Your task to perform on an android device: open chrome and create a bookmark for the current page Image 0: 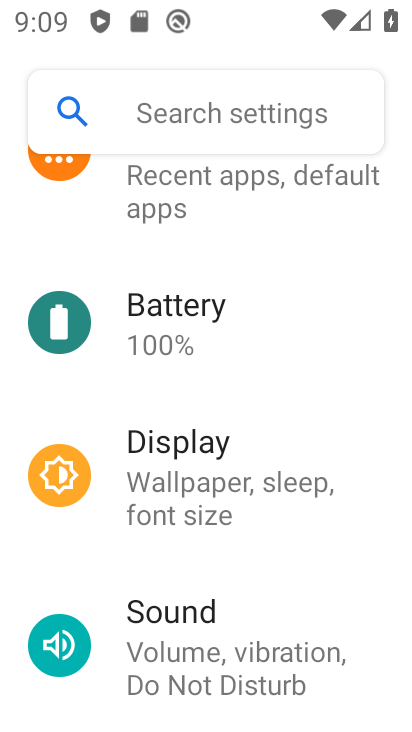
Step 0: press home button
Your task to perform on an android device: open chrome and create a bookmark for the current page Image 1: 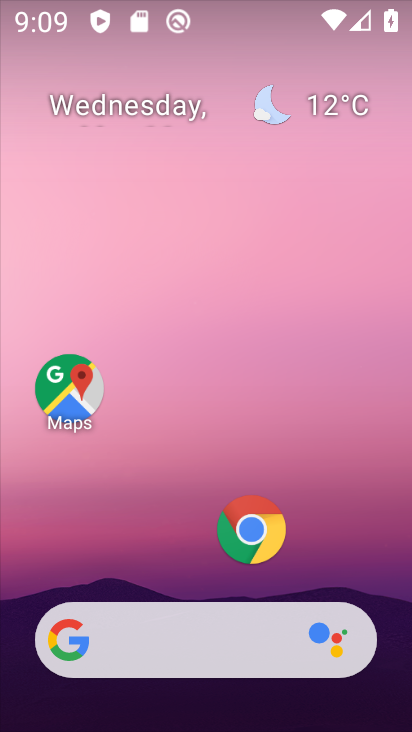
Step 1: click (242, 523)
Your task to perform on an android device: open chrome and create a bookmark for the current page Image 2: 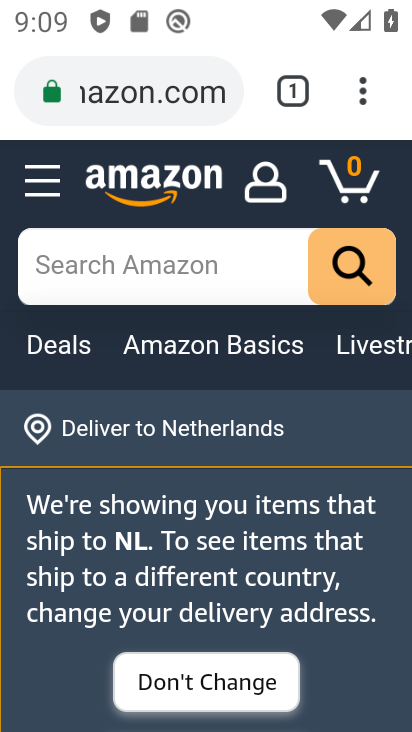
Step 2: click (369, 94)
Your task to perform on an android device: open chrome and create a bookmark for the current page Image 3: 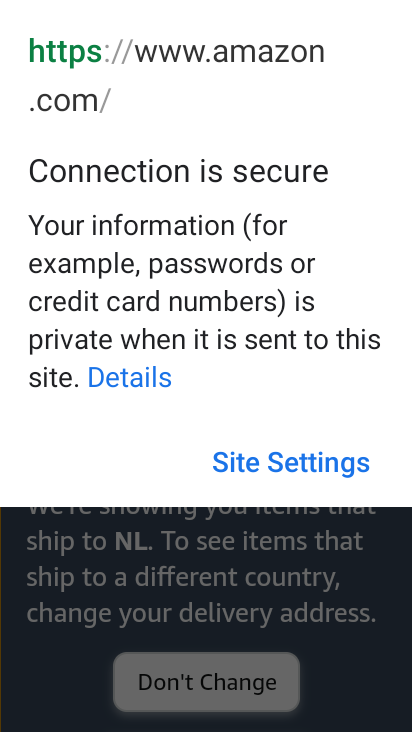
Step 3: click (386, 600)
Your task to perform on an android device: open chrome and create a bookmark for the current page Image 4: 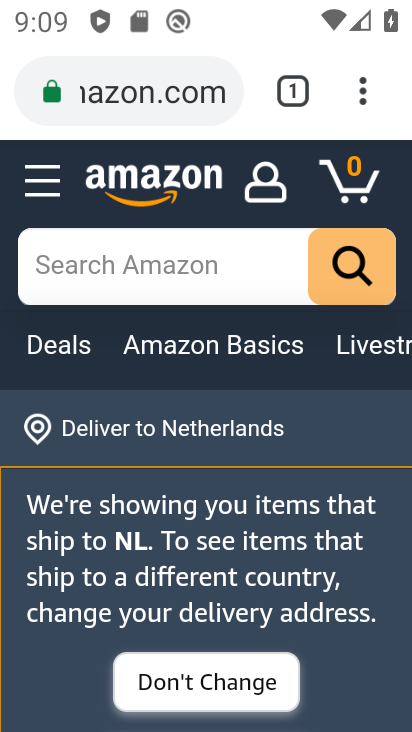
Step 4: click (362, 93)
Your task to perform on an android device: open chrome and create a bookmark for the current page Image 5: 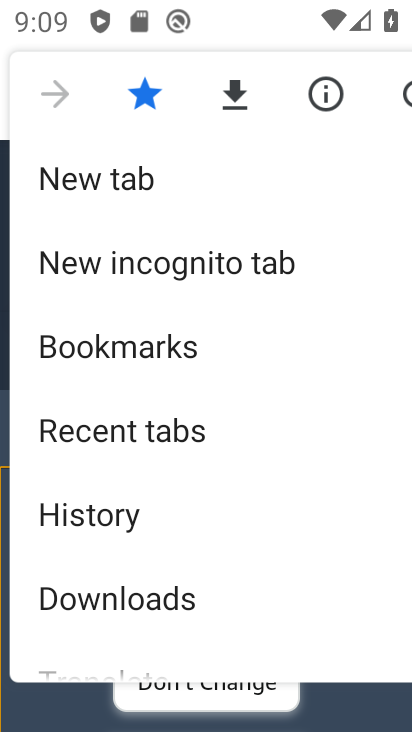
Step 5: drag from (186, 623) to (226, 234)
Your task to perform on an android device: open chrome and create a bookmark for the current page Image 6: 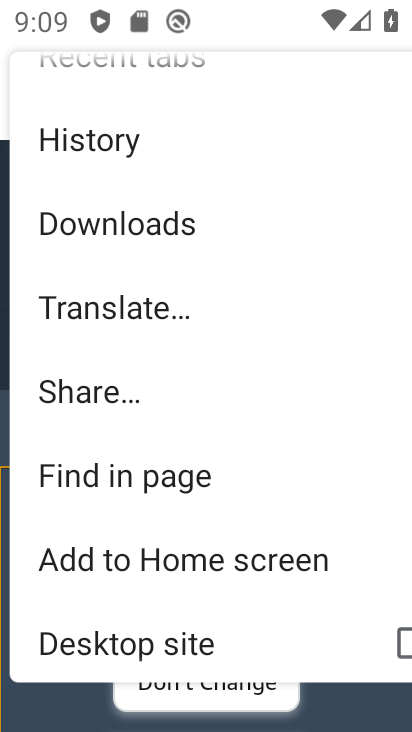
Step 6: drag from (198, 625) to (208, 258)
Your task to perform on an android device: open chrome and create a bookmark for the current page Image 7: 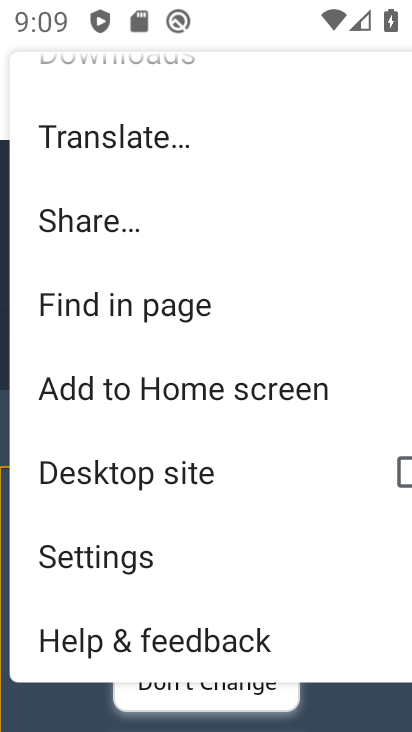
Step 7: drag from (188, 149) to (167, 541)
Your task to perform on an android device: open chrome and create a bookmark for the current page Image 8: 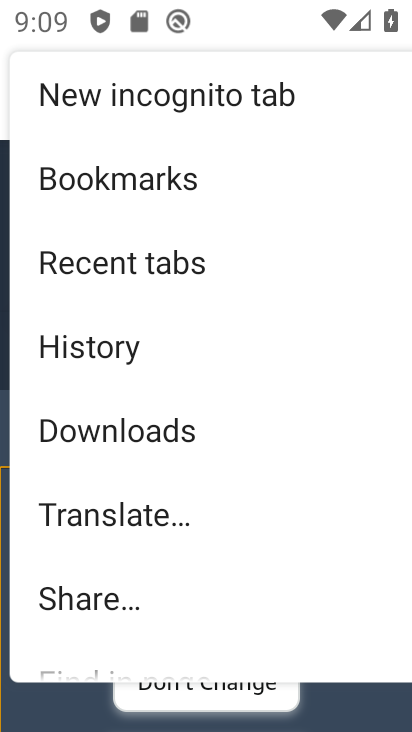
Step 8: click (138, 170)
Your task to perform on an android device: open chrome and create a bookmark for the current page Image 9: 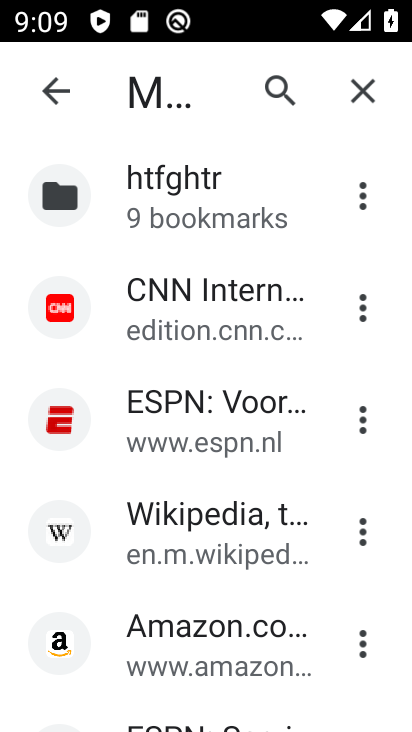
Step 9: task complete